Your task to perform on an android device: Go to Maps Image 0: 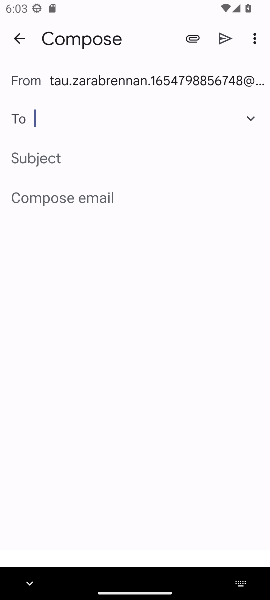
Step 0: press home button
Your task to perform on an android device: Go to Maps Image 1: 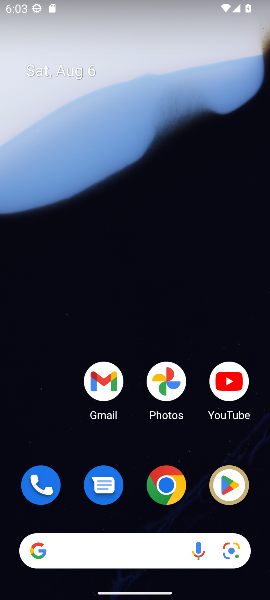
Step 1: drag from (52, 417) to (93, 68)
Your task to perform on an android device: Go to Maps Image 2: 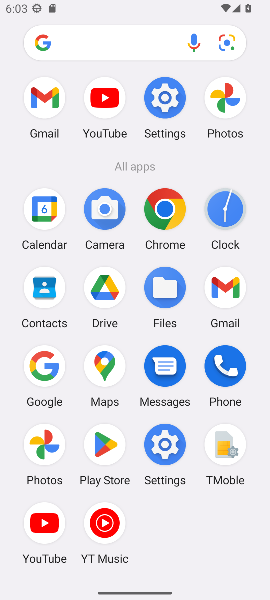
Step 2: click (99, 366)
Your task to perform on an android device: Go to Maps Image 3: 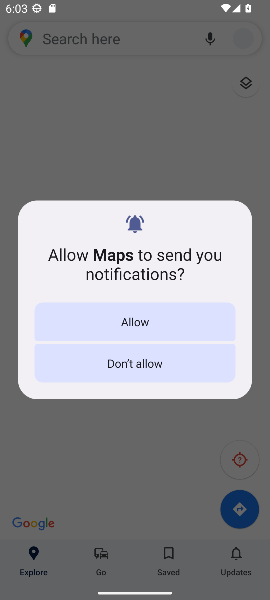
Step 3: click (128, 316)
Your task to perform on an android device: Go to Maps Image 4: 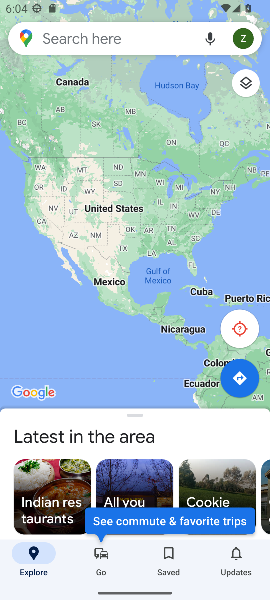
Step 4: task complete